Your task to perform on an android device: change your default location settings in chrome Image 0: 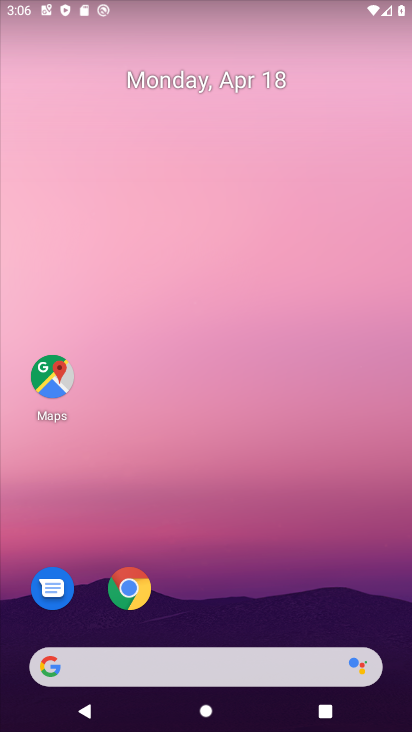
Step 0: click (133, 587)
Your task to perform on an android device: change your default location settings in chrome Image 1: 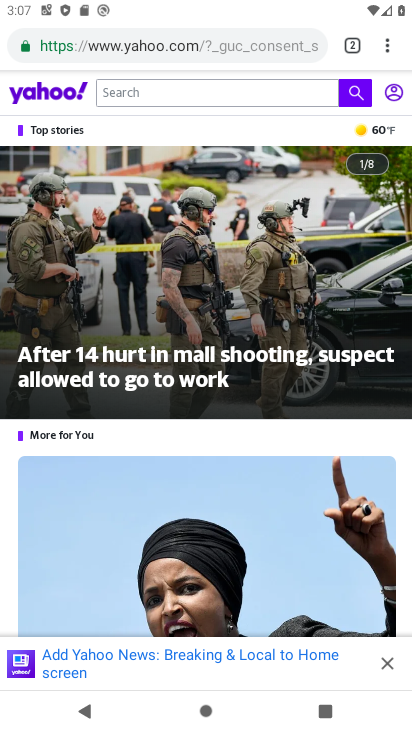
Step 1: click (388, 37)
Your task to perform on an android device: change your default location settings in chrome Image 2: 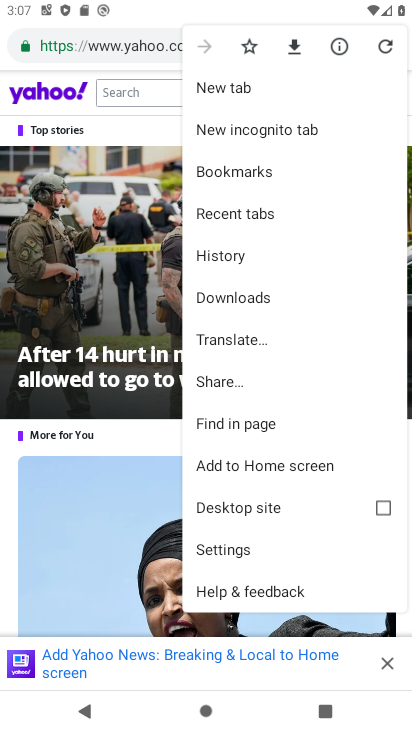
Step 2: click (252, 558)
Your task to perform on an android device: change your default location settings in chrome Image 3: 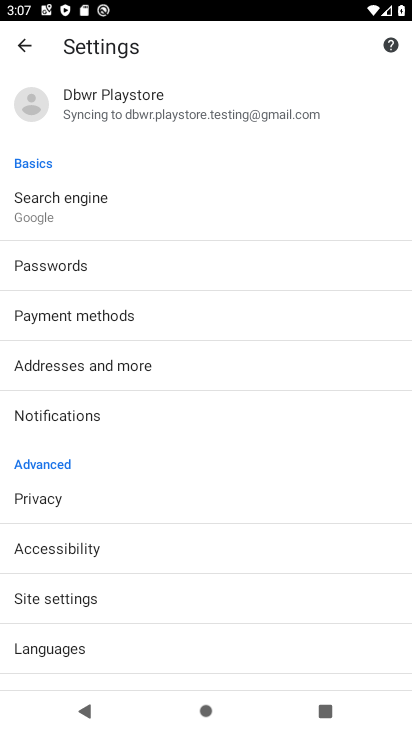
Step 3: drag from (105, 484) to (127, 68)
Your task to perform on an android device: change your default location settings in chrome Image 4: 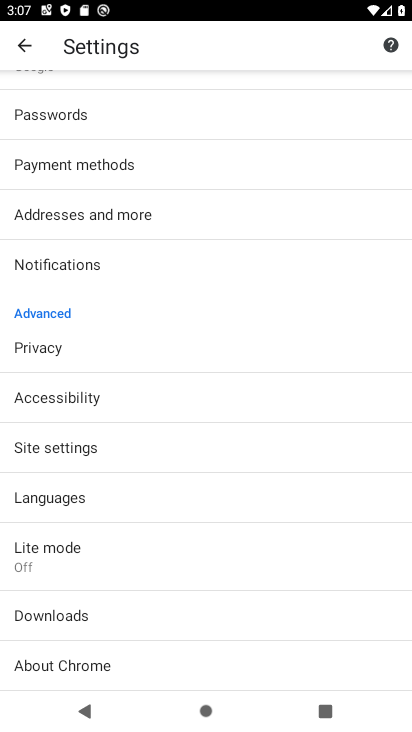
Step 4: click (85, 449)
Your task to perform on an android device: change your default location settings in chrome Image 5: 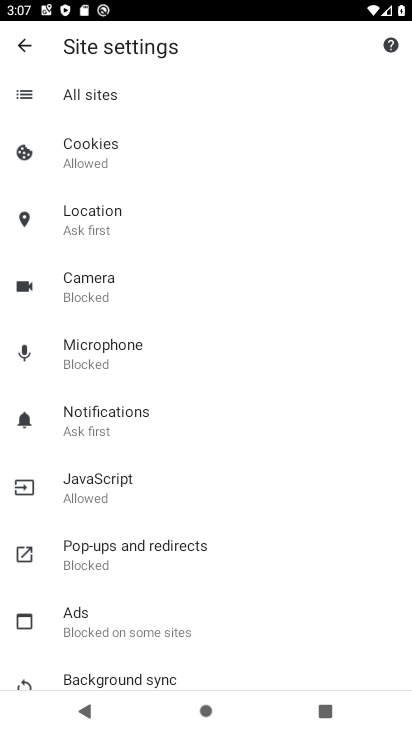
Step 5: click (147, 223)
Your task to perform on an android device: change your default location settings in chrome Image 6: 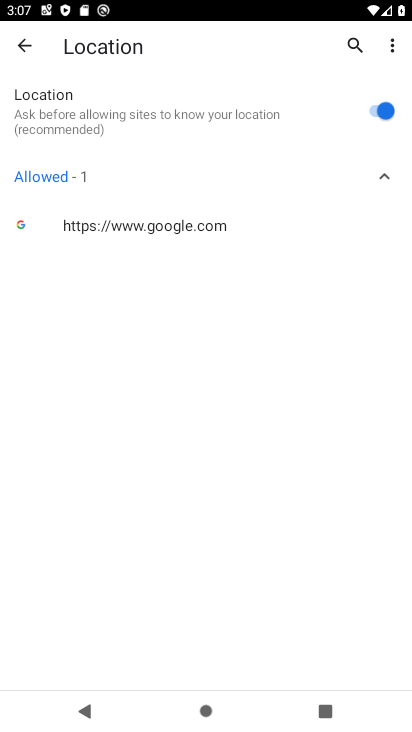
Step 6: click (371, 120)
Your task to perform on an android device: change your default location settings in chrome Image 7: 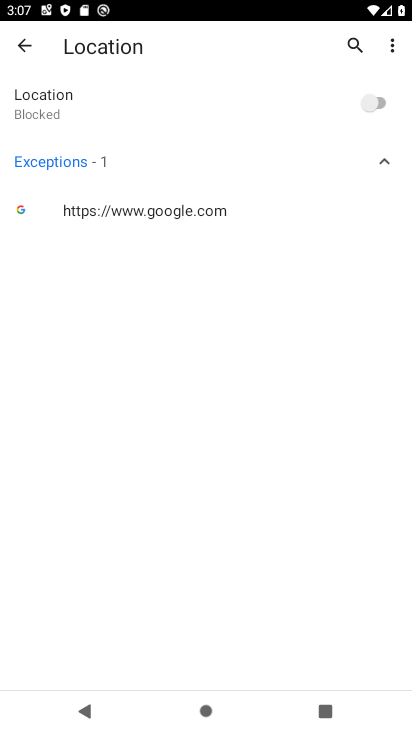
Step 7: task complete